Your task to perform on an android device: What's on my calendar today? Image 0: 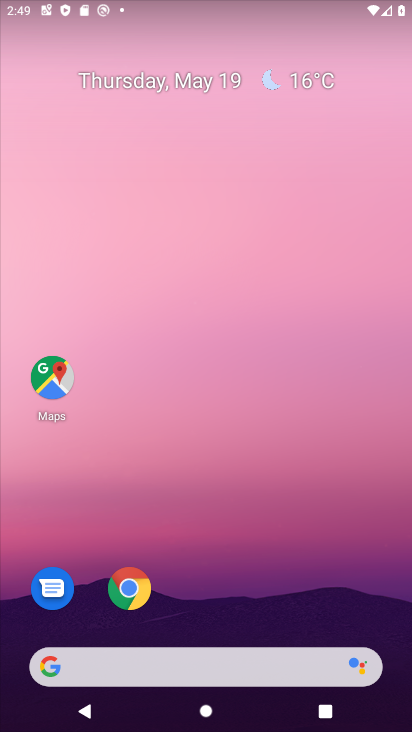
Step 0: drag from (259, 544) to (188, 140)
Your task to perform on an android device: What's on my calendar today? Image 1: 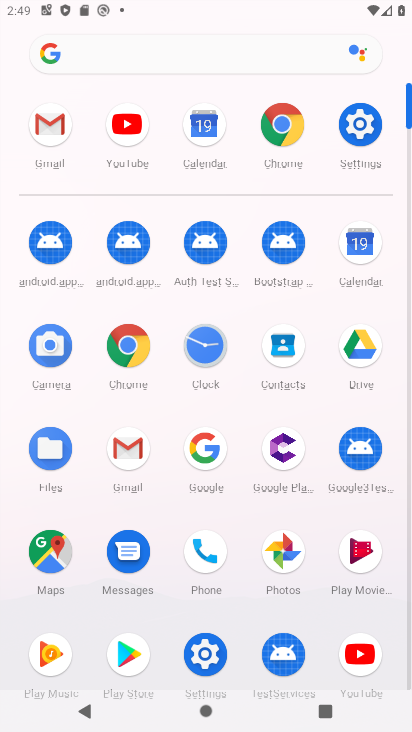
Step 1: click (352, 238)
Your task to perform on an android device: What's on my calendar today? Image 2: 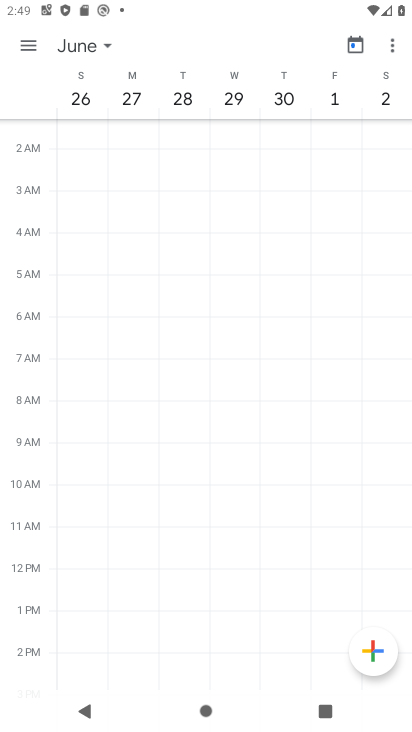
Step 2: click (65, 51)
Your task to perform on an android device: What's on my calendar today? Image 3: 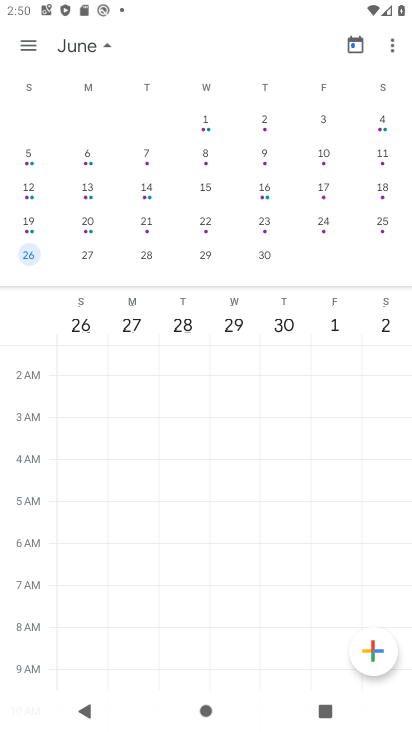
Step 3: drag from (26, 177) to (410, 204)
Your task to perform on an android device: What's on my calendar today? Image 4: 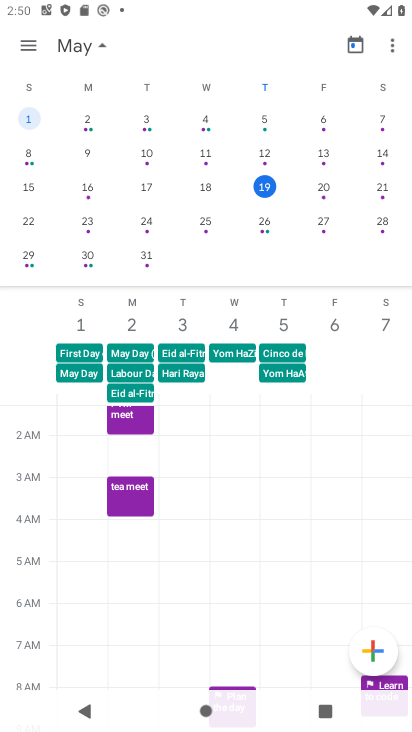
Step 4: click (258, 187)
Your task to perform on an android device: What's on my calendar today? Image 5: 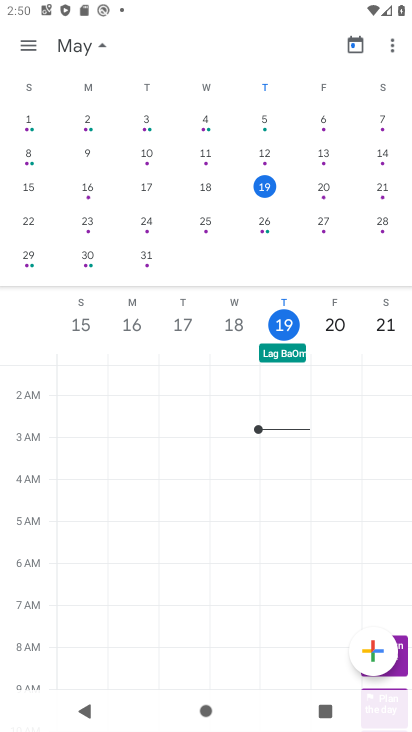
Step 5: task complete